Your task to perform on an android device: find photos in the google photos app Image 0: 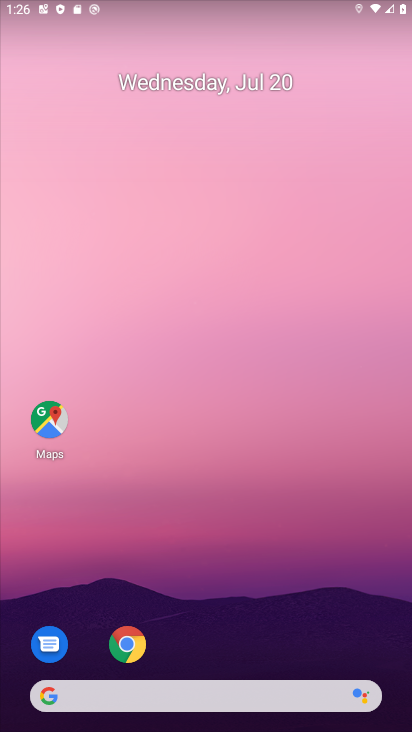
Step 0: press home button
Your task to perform on an android device: find photos in the google photos app Image 1: 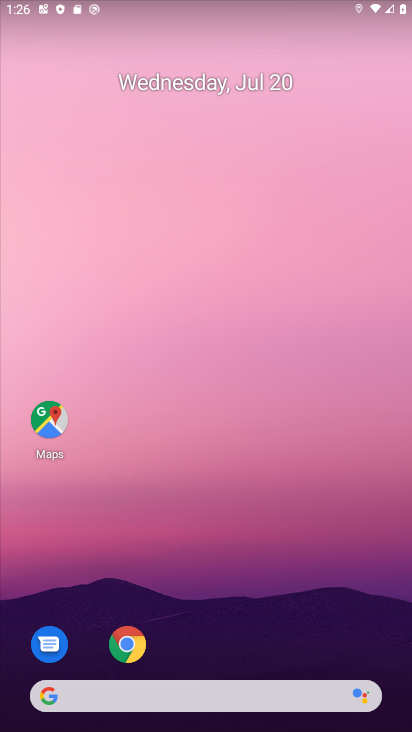
Step 1: drag from (257, 648) to (28, 648)
Your task to perform on an android device: find photos in the google photos app Image 2: 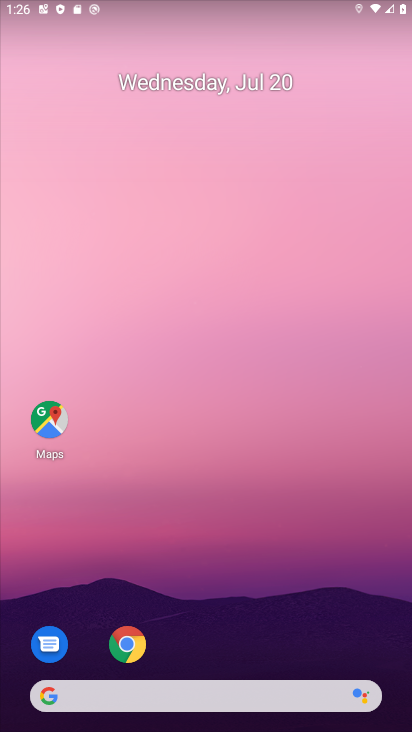
Step 2: drag from (256, 648) to (261, 19)
Your task to perform on an android device: find photos in the google photos app Image 3: 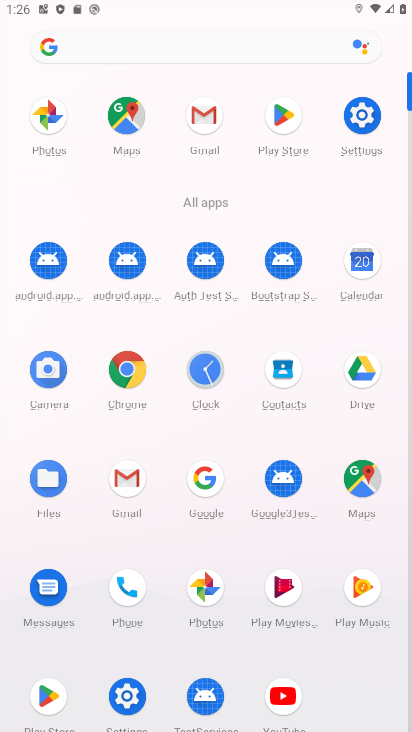
Step 3: click (205, 588)
Your task to perform on an android device: find photos in the google photos app Image 4: 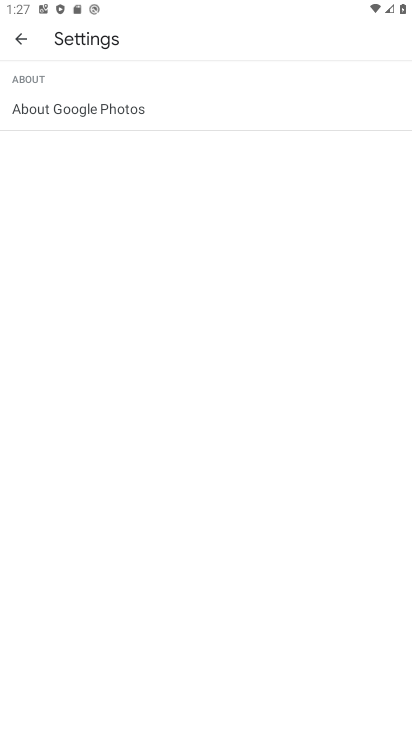
Step 4: click (17, 36)
Your task to perform on an android device: find photos in the google photos app Image 5: 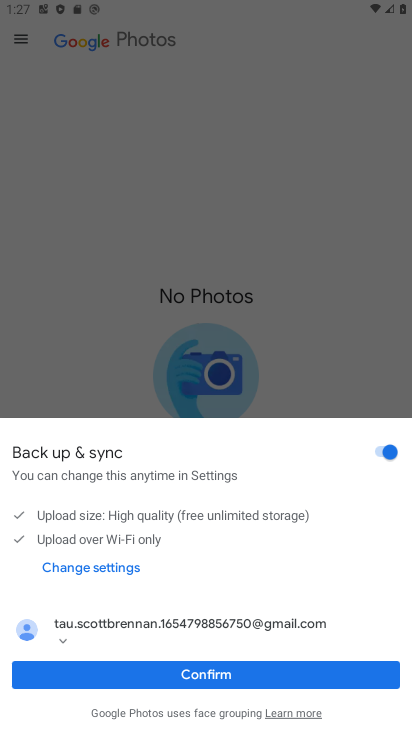
Step 5: click (173, 679)
Your task to perform on an android device: find photos in the google photos app Image 6: 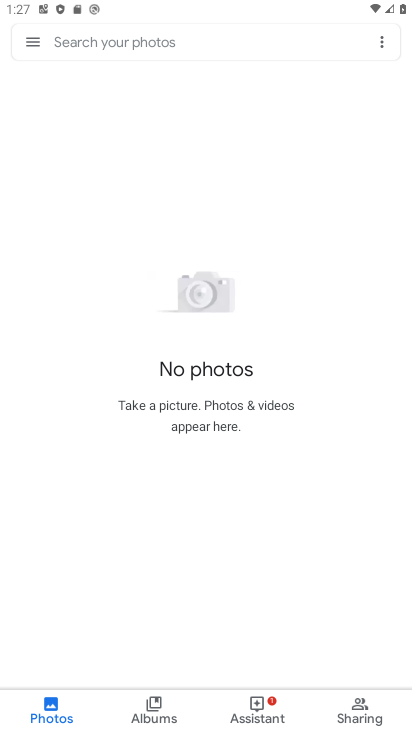
Step 6: task complete